Your task to perform on an android device: open a new tab in the chrome app Image 0: 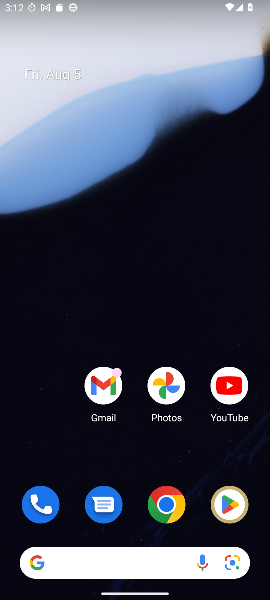
Step 0: click (164, 506)
Your task to perform on an android device: open a new tab in the chrome app Image 1: 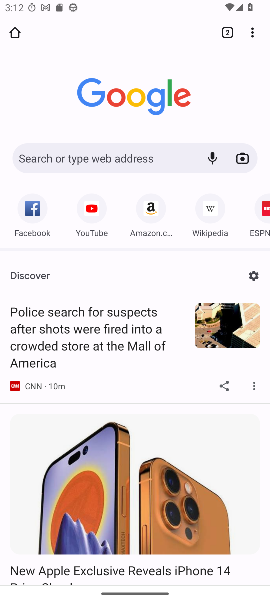
Step 1: click (251, 36)
Your task to perform on an android device: open a new tab in the chrome app Image 2: 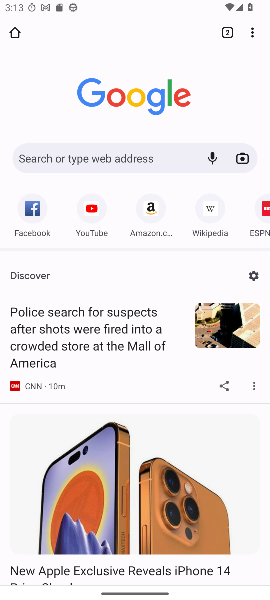
Step 2: click (252, 29)
Your task to perform on an android device: open a new tab in the chrome app Image 3: 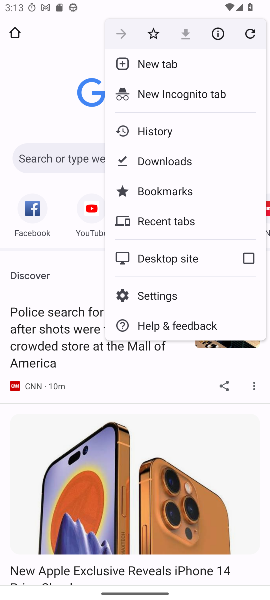
Step 3: click (161, 64)
Your task to perform on an android device: open a new tab in the chrome app Image 4: 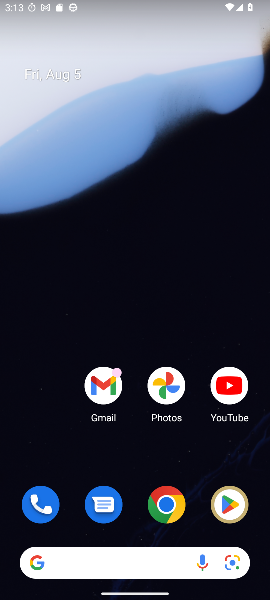
Step 4: task complete